Your task to perform on an android device: check google app version Image 0: 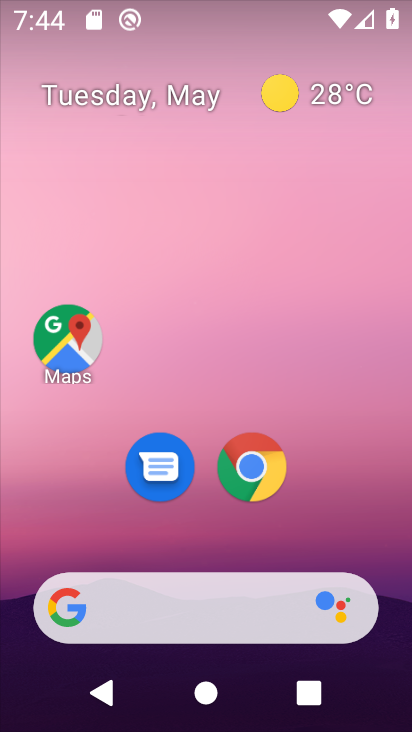
Step 0: drag from (404, 700) to (362, 135)
Your task to perform on an android device: check google app version Image 1: 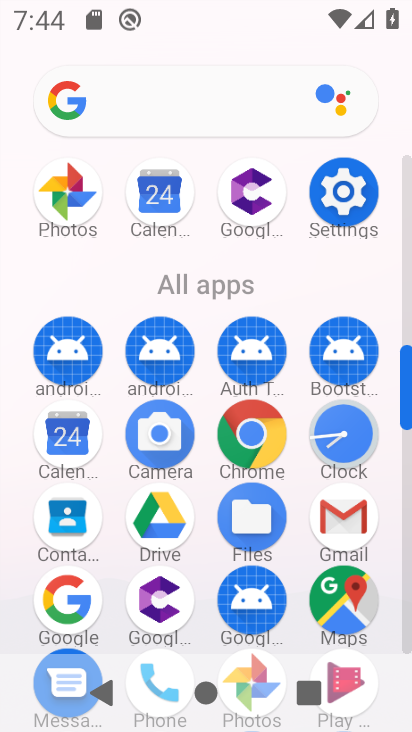
Step 1: click (86, 607)
Your task to perform on an android device: check google app version Image 2: 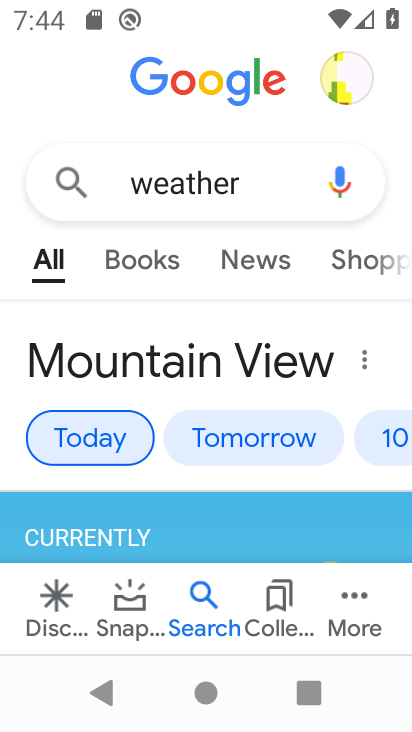
Step 2: click (334, 614)
Your task to perform on an android device: check google app version Image 3: 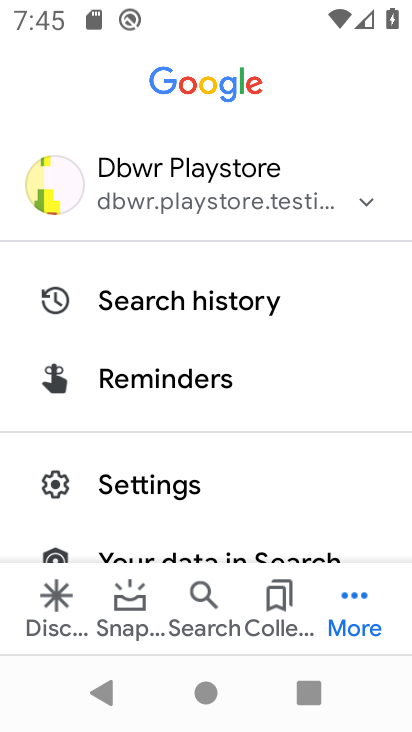
Step 3: click (129, 473)
Your task to perform on an android device: check google app version Image 4: 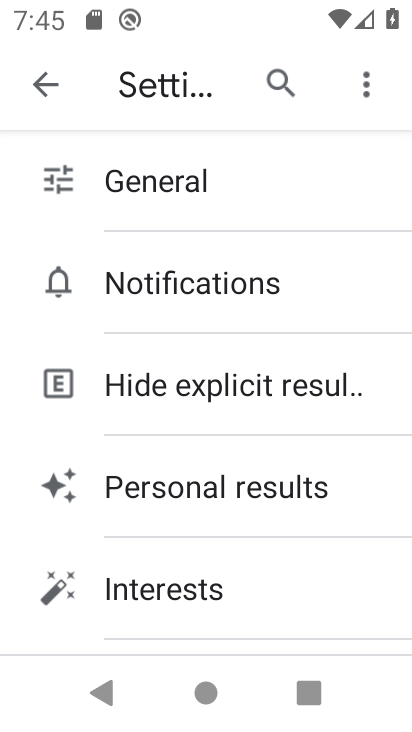
Step 4: drag from (326, 617) to (325, 275)
Your task to perform on an android device: check google app version Image 5: 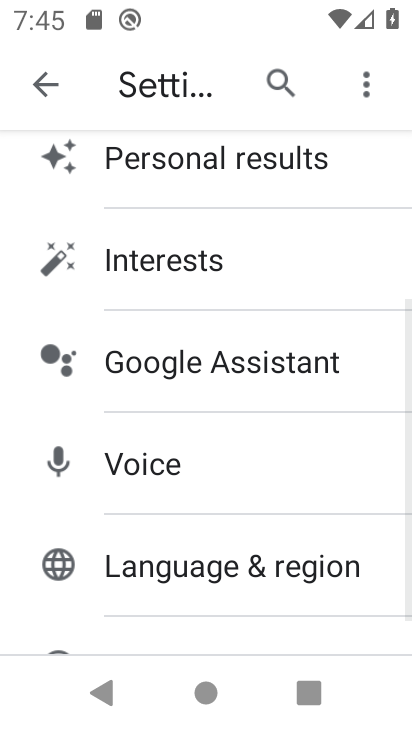
Step 5: drag from (251, 610) to (238, 330)
Your task to perform on an android device: check google app version Image 6: 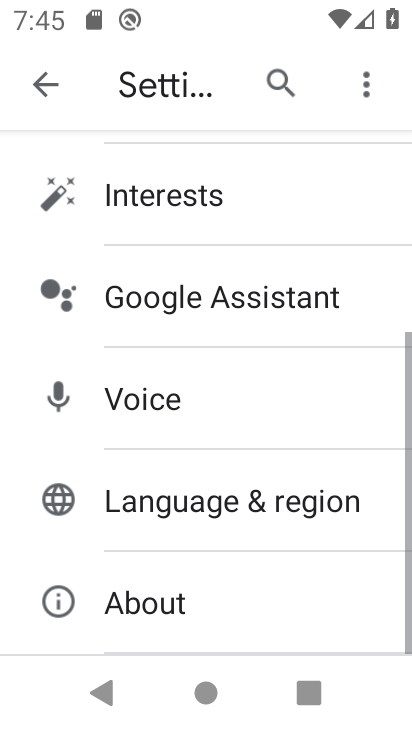
Step 6: click (163, 600)
Your task to perform on an android device: check google app version Image 7: 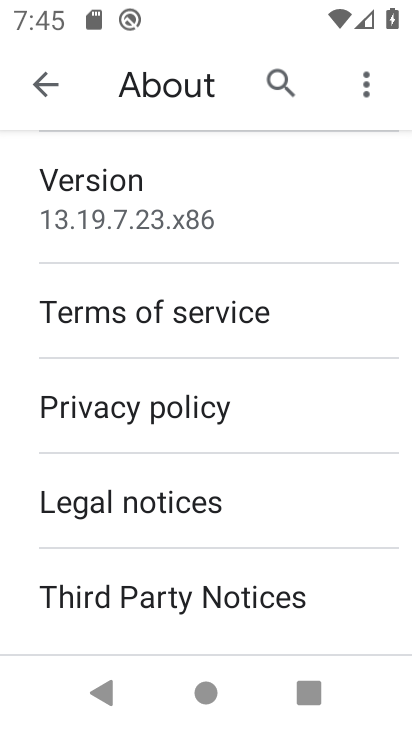
Step 7: click (134, 221)
Your task to perform on an android device: check google app version Image 8: 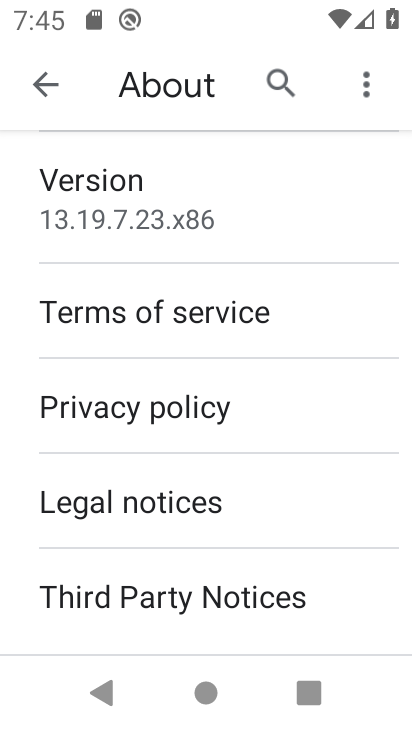
Step 8: task complete